Your task to perform on an android device: What is the recent news? Image 0: 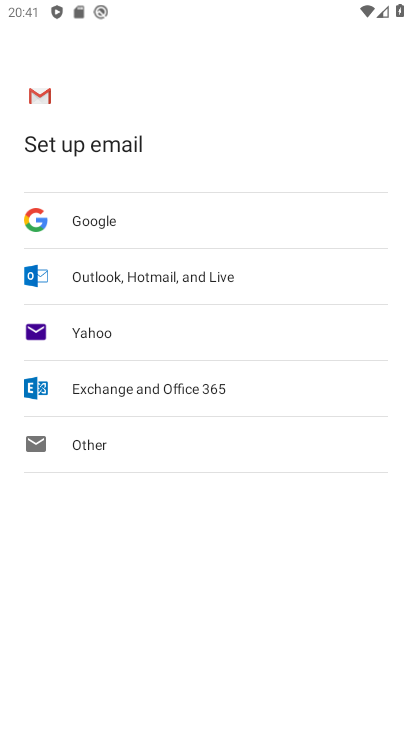
Step 0: press home button
Your task to perform on an android device: What is the recent news? Image 1: 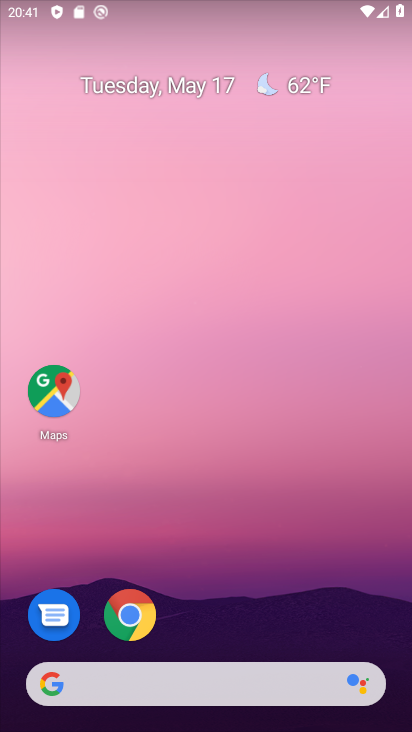
Step 1: click (139, 620)
Your task to perform on an android device: What is the recent news? Image 2: 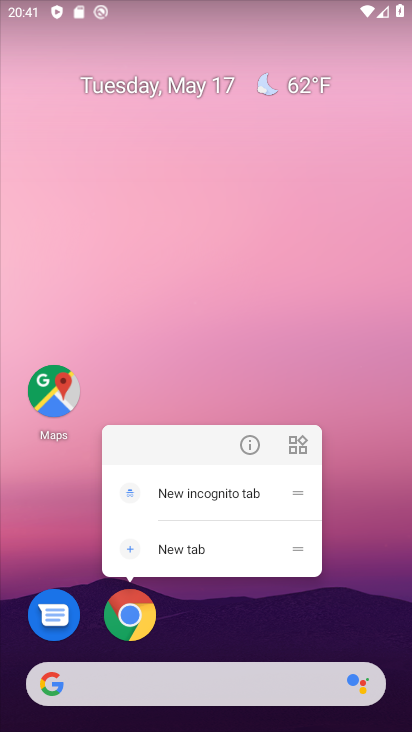
Step 2: click (134, 607)
Your task to perform on an android device: What is the recent news? Image 3: 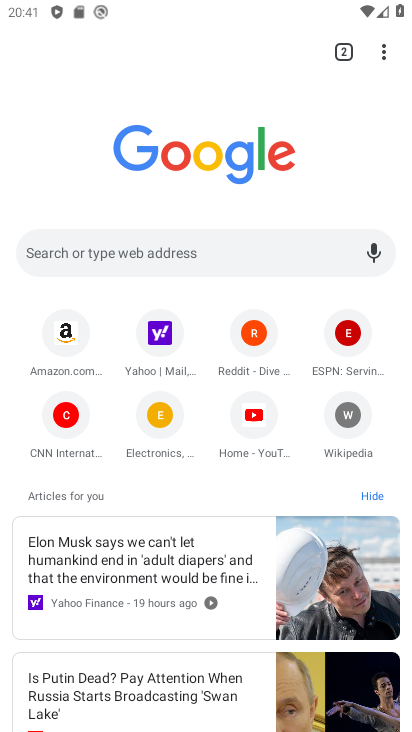
Step 3: click (121, 244)
Your task to perform on an android device: What is the recent news? Image 4: 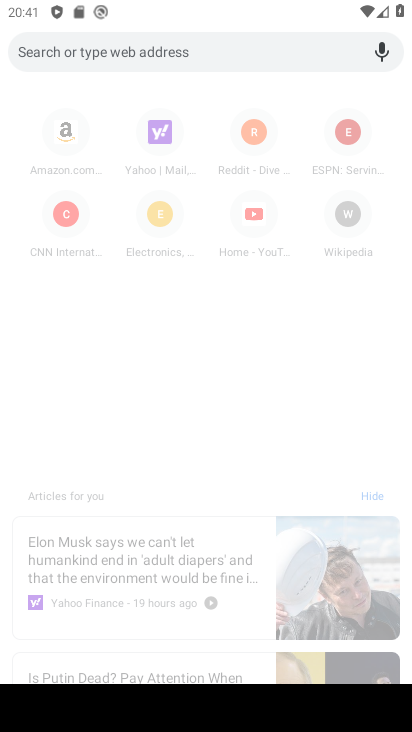
Step 4: type "What is the recent news?"
Your task to perform on an android device: What is the recent news? Image 5: 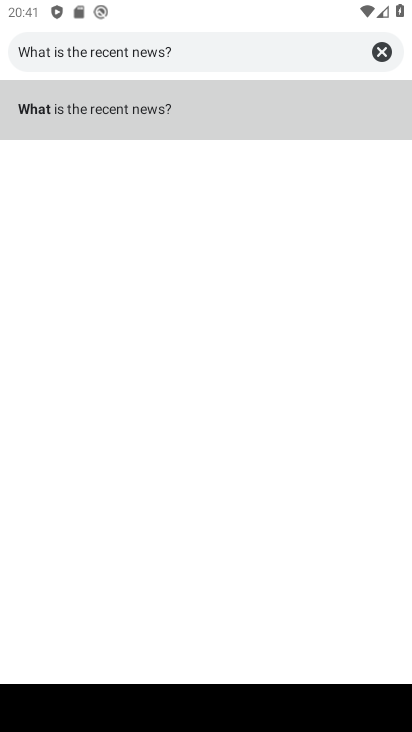
Step 5: click (132, 107)
Your task to perform on an android device: What is the recent news? Image 6: 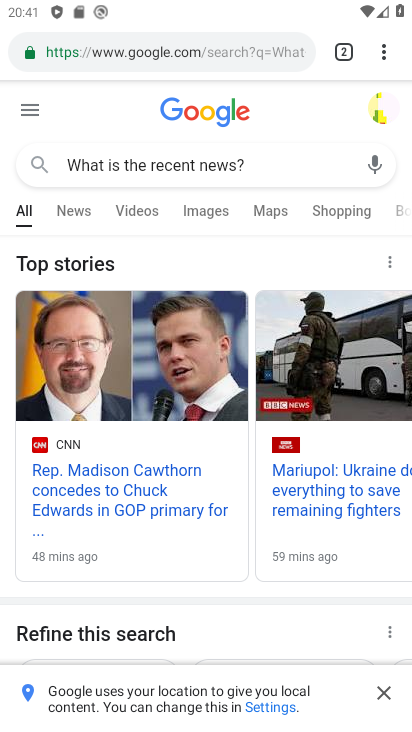
Step 6: task complete